Your task to perform on an android device: Go to eBay Image 0: 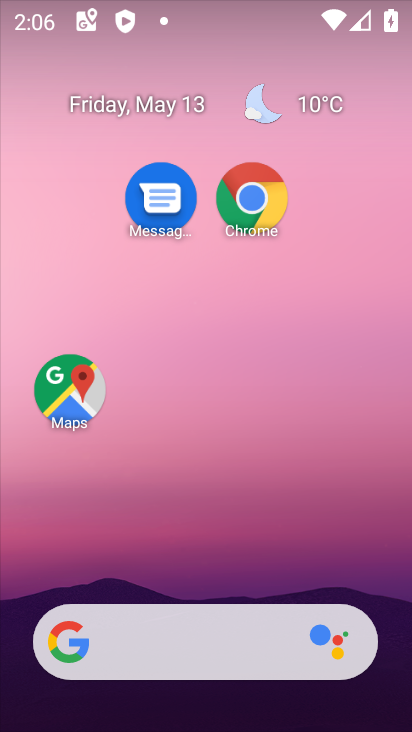
Step 0: click (264, 207)
Your task to perform on an android device: Go to eBay Image 1: 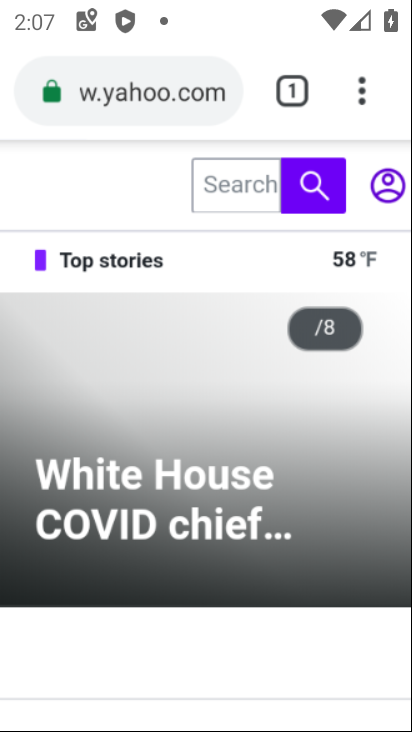
Step 1: click (292, 111)
Your task to perform on an android device: Go to eBay Image 2: 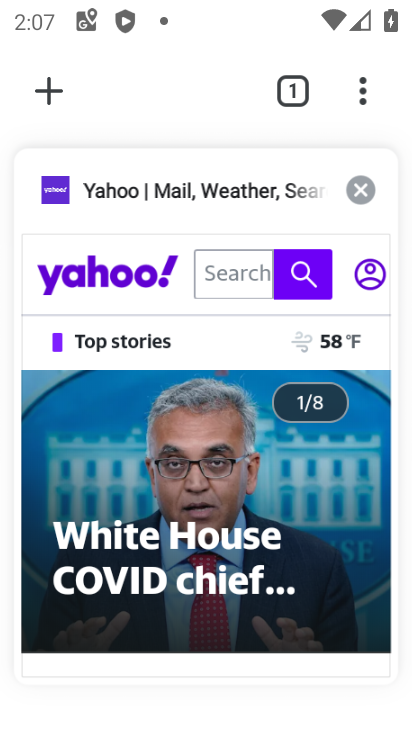
Step 2: click (40, 78)
Your task to perform on an android device: Go to eBay Image 3: 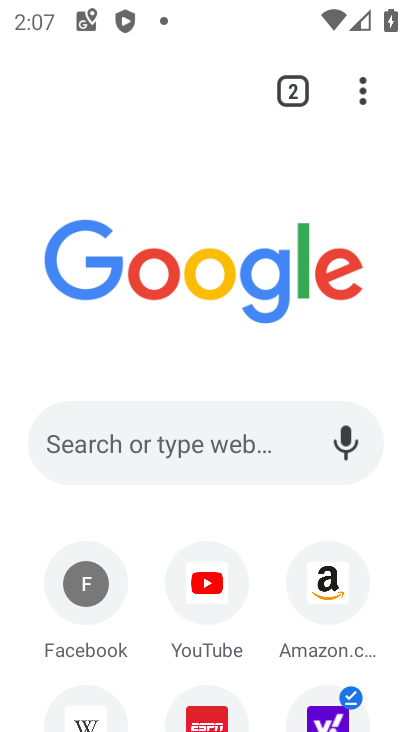
Step 3: drag from (274, 675) to (264, 471)
Your task to perform on an android device: Go to eBay Image 4: 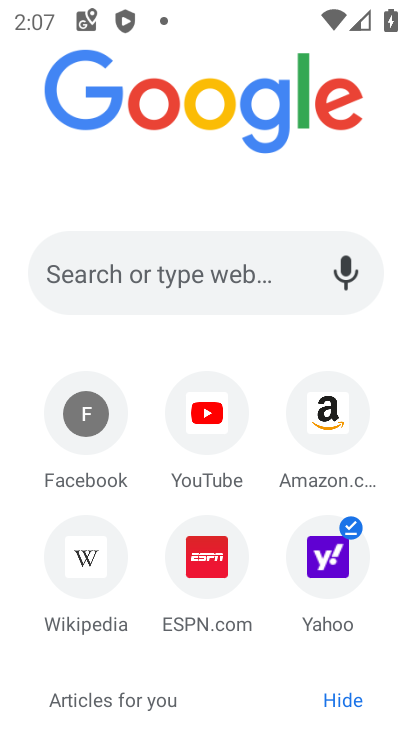
Step 4: click (148, 282)
Your task to perform on an android device: Go to eBay Image 5: 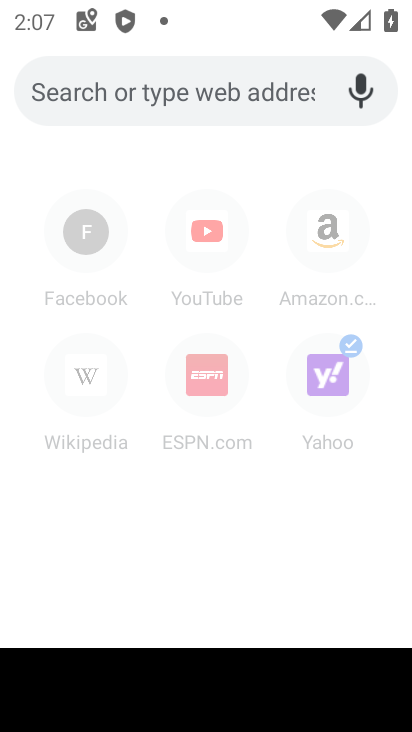
Step 5: type "ebay"
Your task to perform on an android device: Go to eBay Image 6: 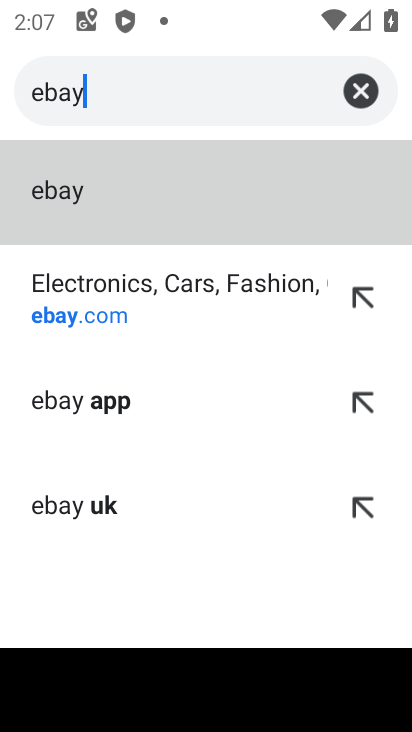
Step 6: click (260, 270)
Your task to perform on an android device: Go to eBay Image 7: 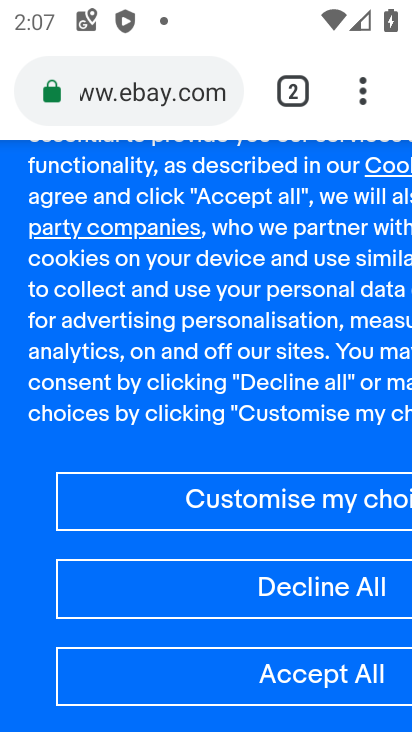
Step 7: task complete